Your task to perform on an android device: turn on location history Image 0: 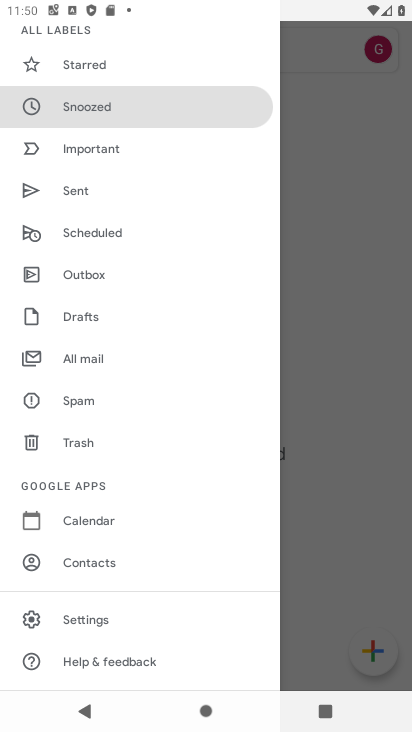
Step 0: drag from (172, 587) to (179, 123)
Your task to perform on an android device: turn on location history Image 1: 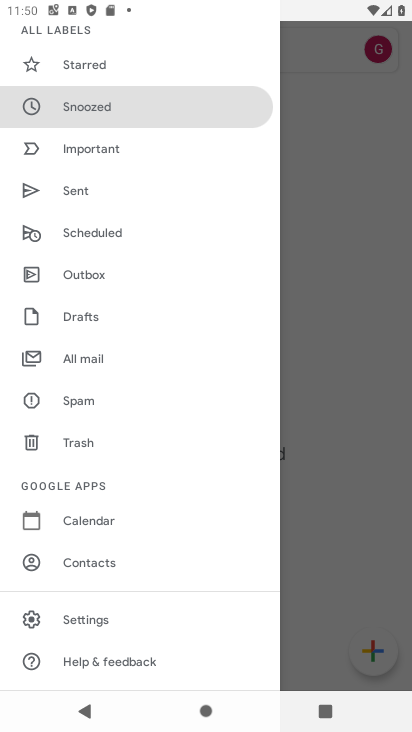
Step 1: press home button
Your task to perform on an android device: turn on location history Image 2: 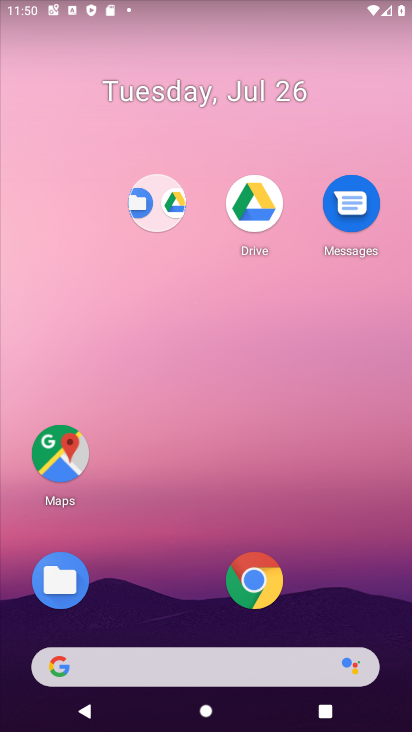
Step 2: drag from (166, 624) to (208, 0)
Your task to perform on an android device: turn on location history Image 3: 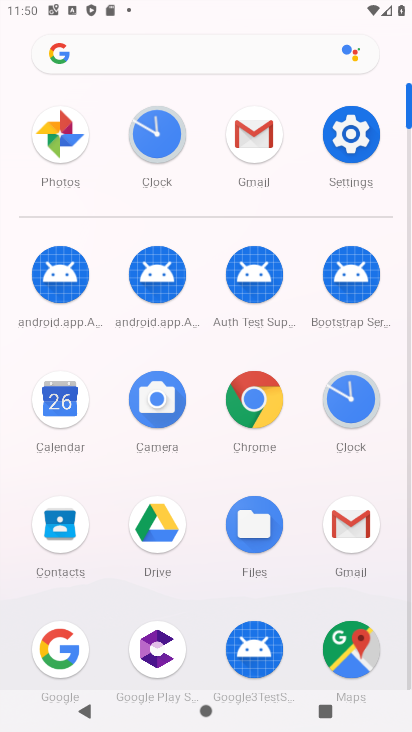
Step 3: click (347, 157)
Your task to perform on an android device: turn on location history Image 4: 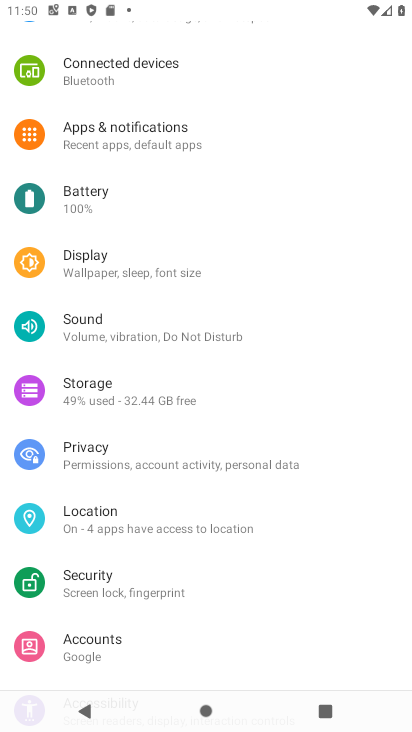
Step 4: click (73, 515)
Your task to perform on an android device: turn on location history Image 5: 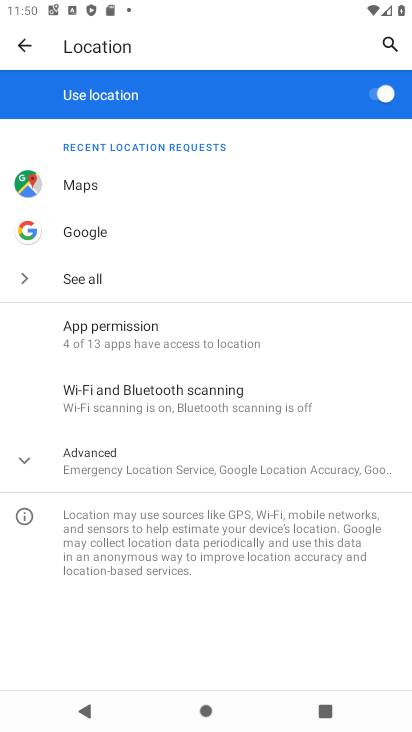
Step 5: click (214, 469)
Your task to perform on an android device: turn on location history Image 6: 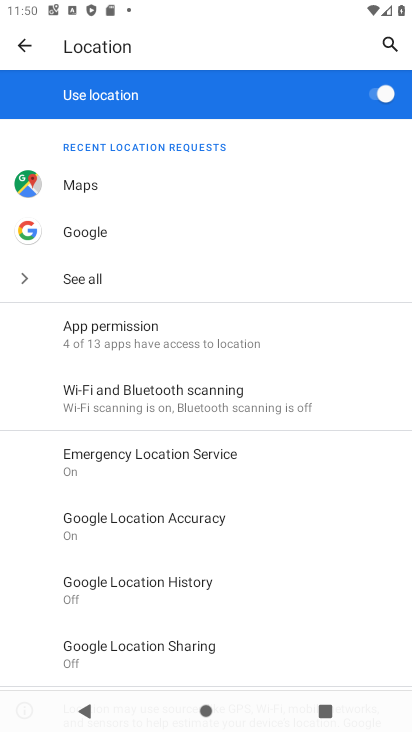
Step 6: click (222, 600)
Your task to perform on an android device: turn on location history Image 7: 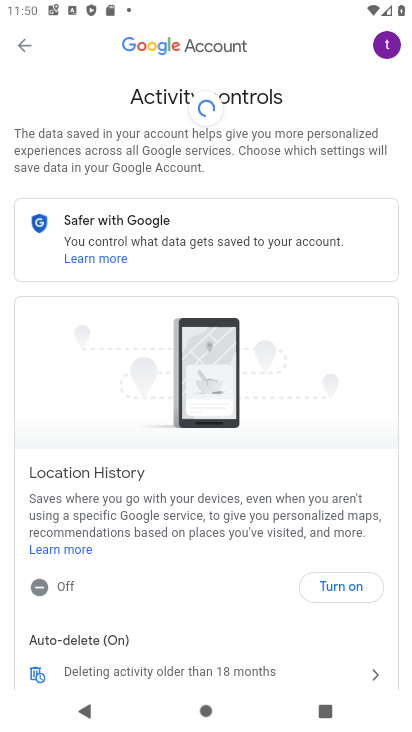
Step 7: click (349, 583)
Your task to perform on an android device: turn on location history Image 8: 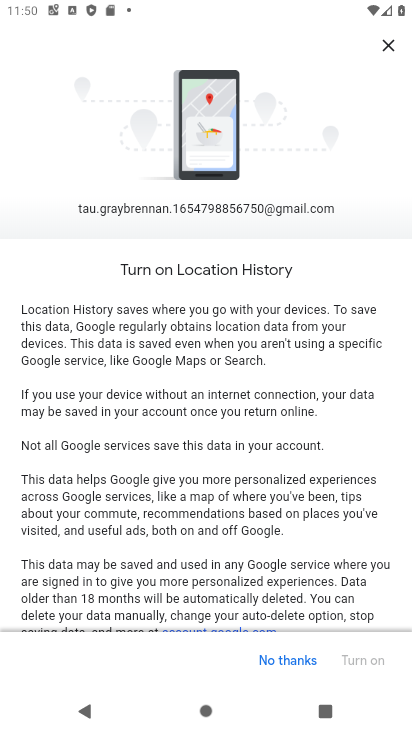
Step 8: drag from (301, 596) to (329, 176)
Your task to perform on an android device: turn on location history Image 9: 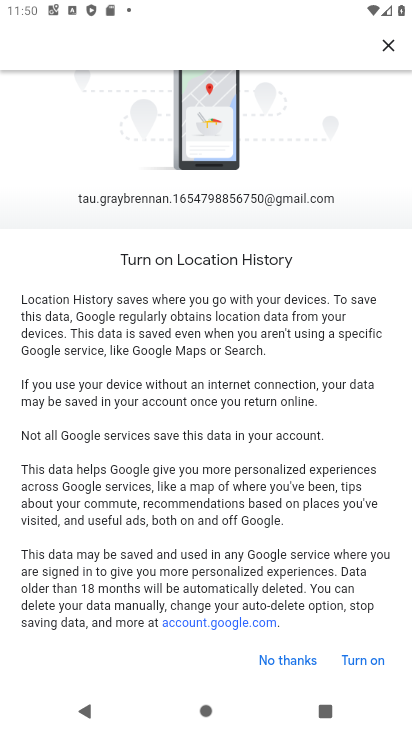
Step 9: click (364, 664)
Your task to perform on an android device: turn on location history Image 10: 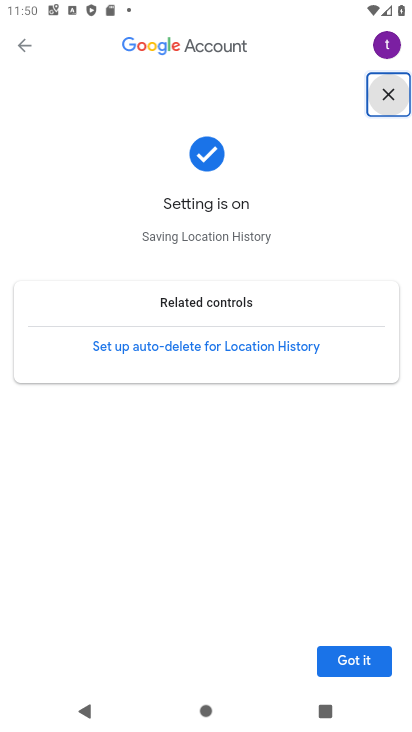
Step 10: click (351, 670)
Your task to perform on an android device: turn on location history Image 11: 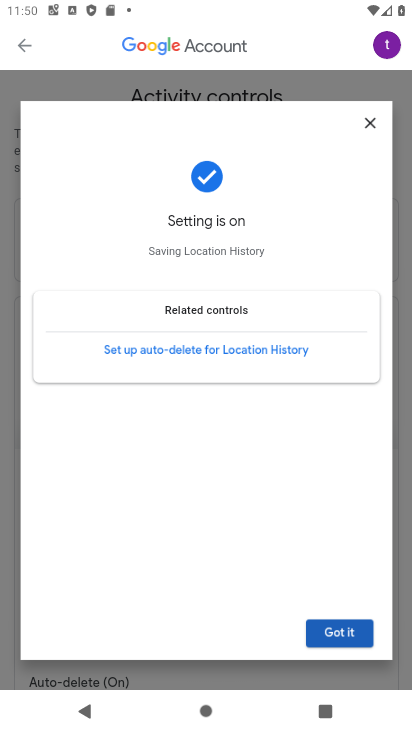
Step 11: task complete